Your task to perform on an android device: toggle airplane mode Image 0: 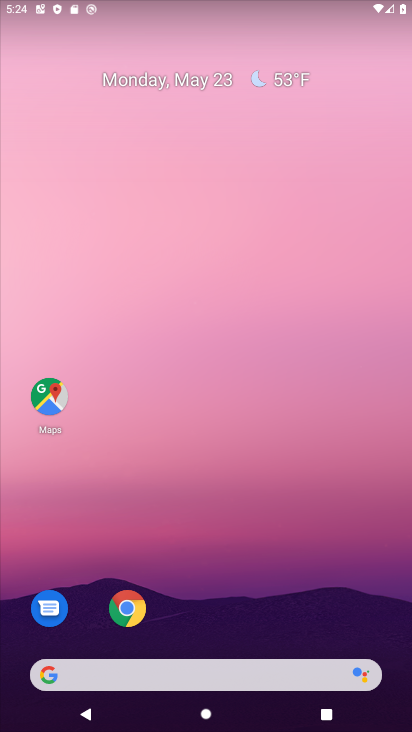
Step 0: drag from (219, 601) to (287, 241)
Your task to perform on an android device: toggle airplane mode Image 1: 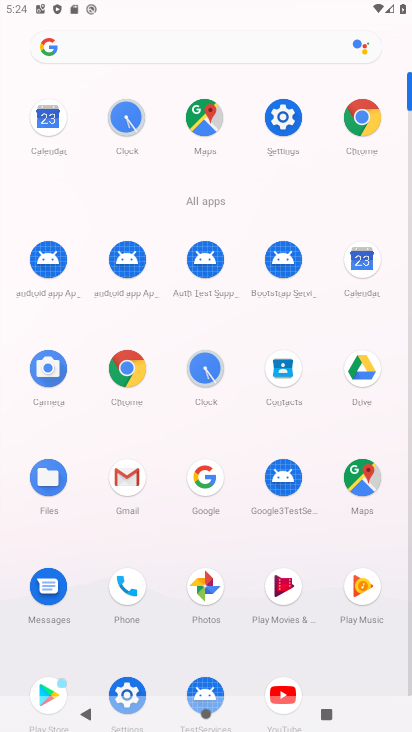
Step 1: click (282, 143)
Your task to perform on an android device: toggle airplane mode Image 2: 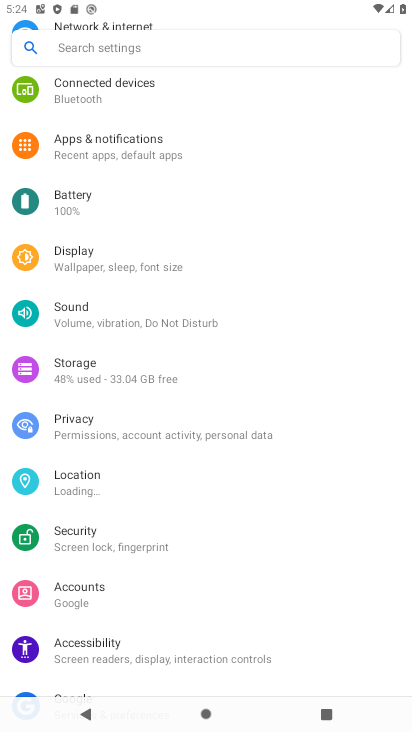
Step 2: click (157, 154)
Your task to perform on an android device: toggle airplane mode Image 3: 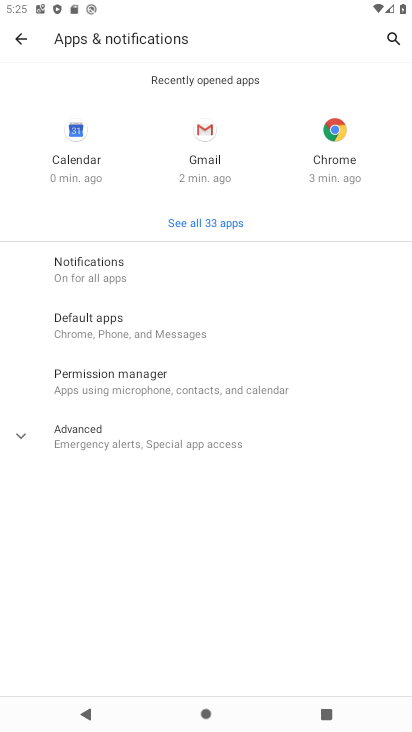
Step 3: press back button
Your task to perform on an android device: toggle airplane mode Image 4: 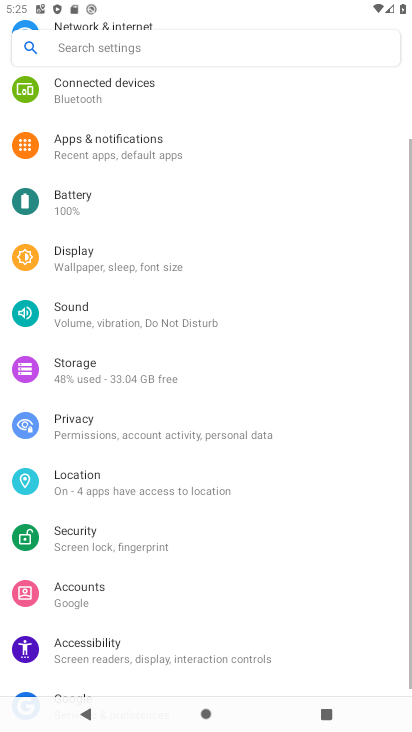
Step 4: drag from (196, 154) to (237, 491)
Your task to perform on an android device: toggle airplane mode Image 5: 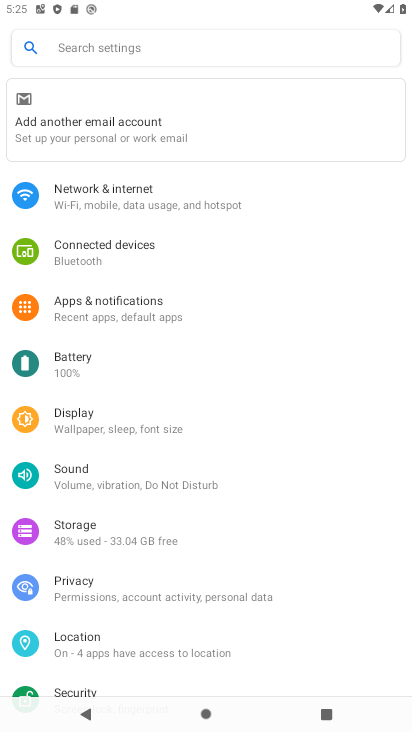
Step 5: click (204, 207)
Your task to perform on an android device: toggle airplane mode Image 6: 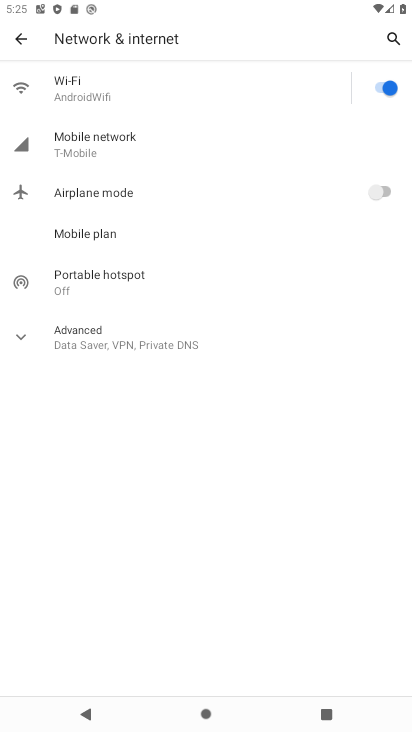
Step 6: click (357, 196)
Your task to perform on an android device: toggle airplane mode Image 7: 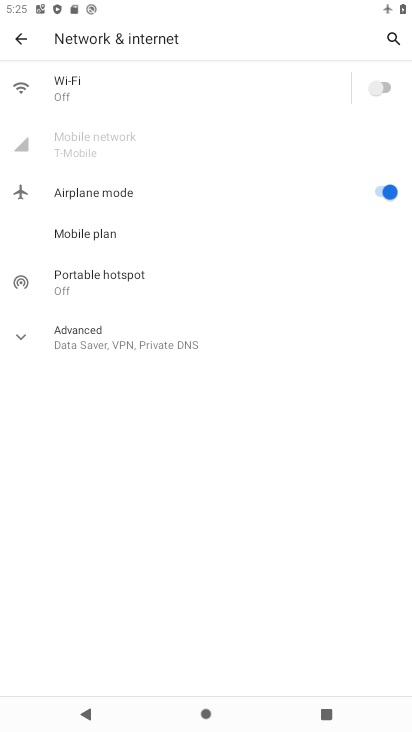
Step 7: task complete